Your task to perform on an android device: Is it going to rain this weekend? Image 0: 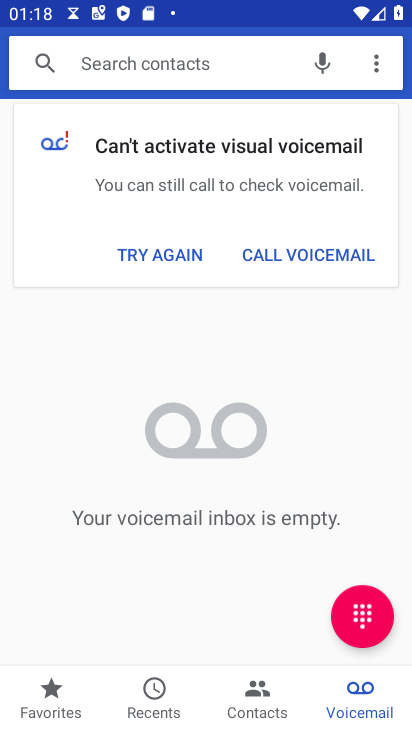
Step 0: press home button
Your task to perform on an android device: Is it going to rain this weekend? Image 1: 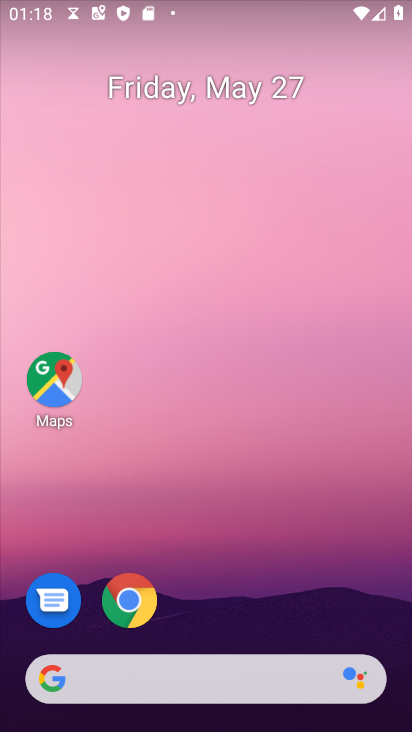
Step 1: click (205, 674)
Your task to perform on an android device: Is it going to rain this weekend? Image 2: 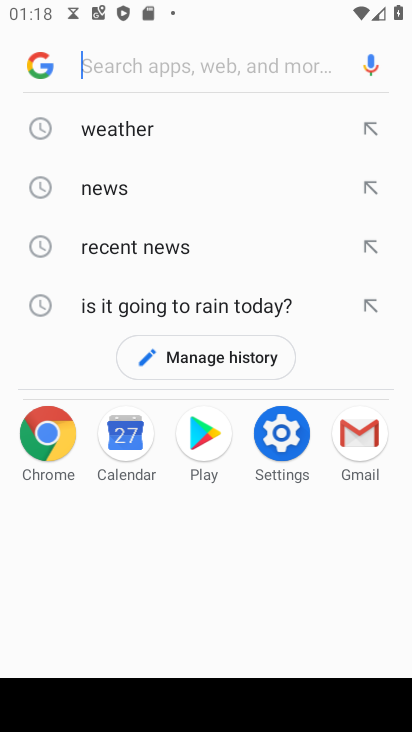
Step 2: click (121, 130)
Your task to perform on an android device: Is it going to rain this weekend? Image 3: 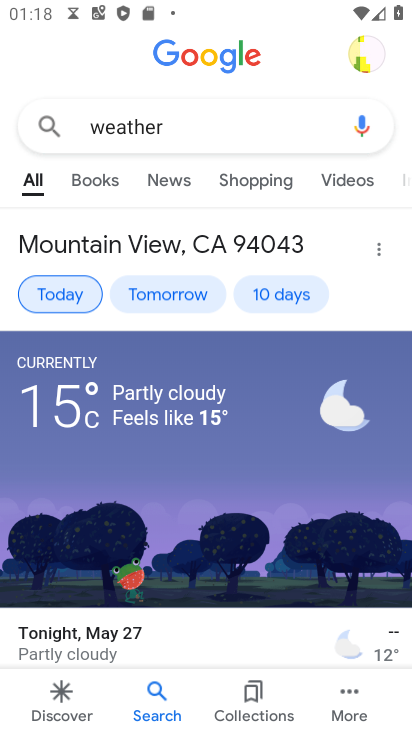
Step 3: click (274, 297)
Your task to perform on an android device: Is it going to rain this weekend? Image 4: 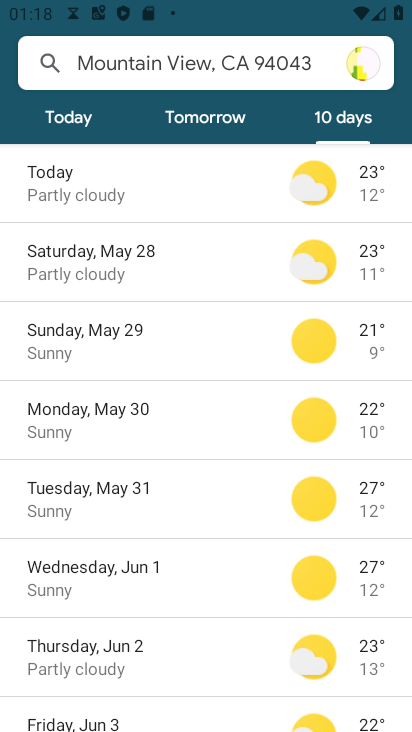
Step 4: task complete